Your task to perform on an android device: turn on notifications settings in the gmail app Image 0: 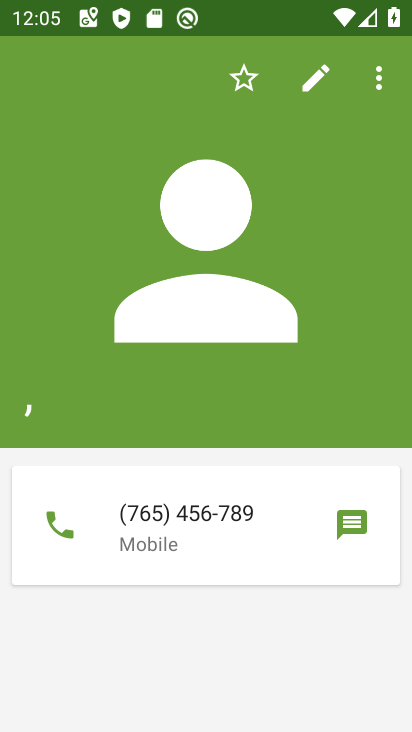
Step 0: press home button
Your task to perform on an android device: turn on notifications settings in the gmail app Image 1: 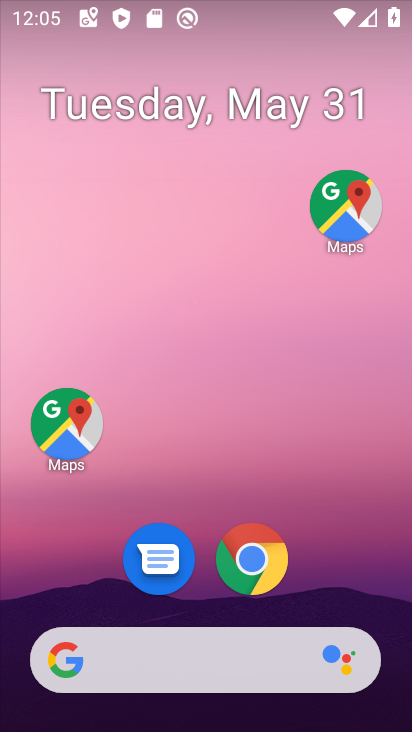
Step 1: drag from (344, 565) to (245, 83)
Your task to perform on an android device: turn on notifications settings in the gmail app Image 2: 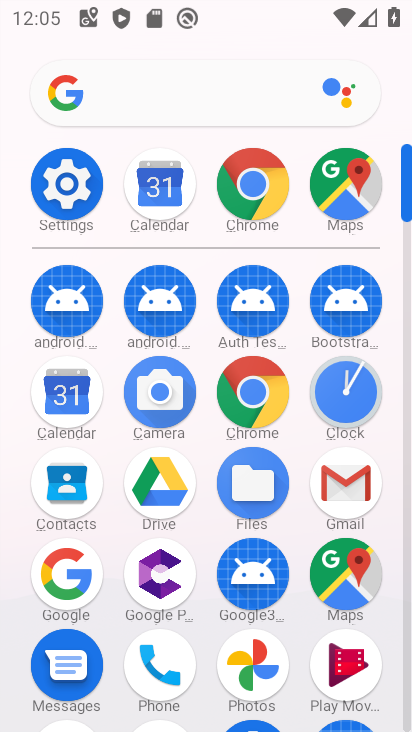
Step 2: click (337, 484)
Your task to perform on an android device: turn on notifications settings in the gmail app Image 3: 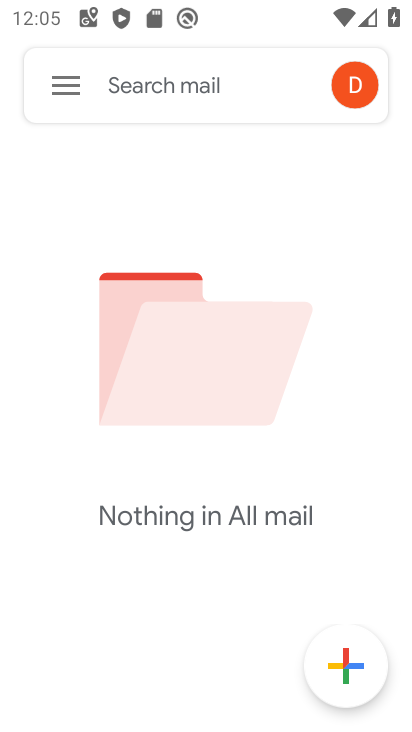
Step 3: click (51, 69)
Your task to perform on an android device: turn on notifications settings in the gmail app Image 4: 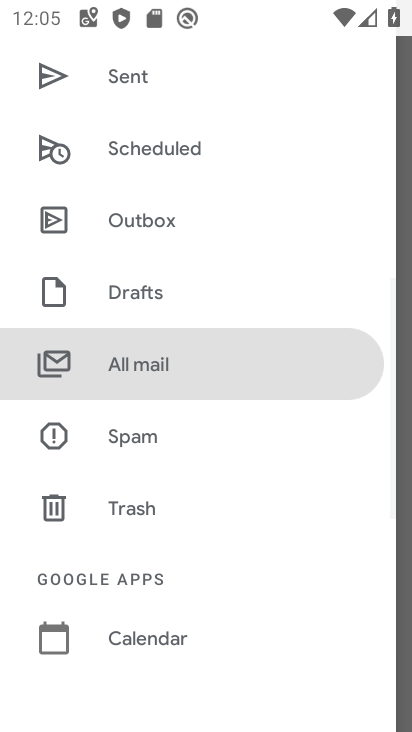
Step 4: drag from (139, 639) to (226, 187)
Your task to perform on an android device: turn on notifications settings in the gmail app Image 5: 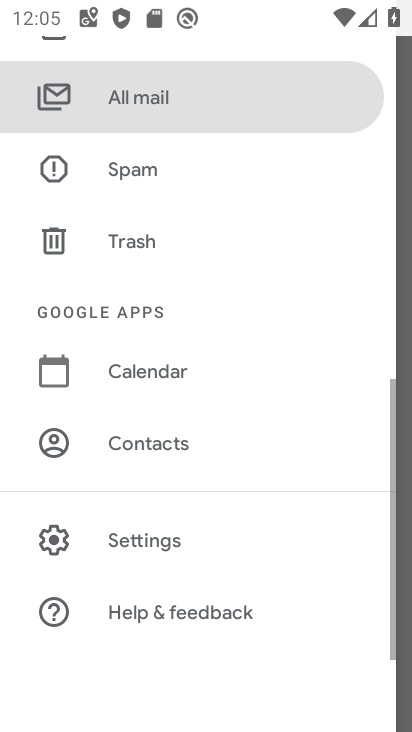
Step 5: click (143, 543)
Your task to perform on an android device: turn on notifications settings in the gmail app Image 6: 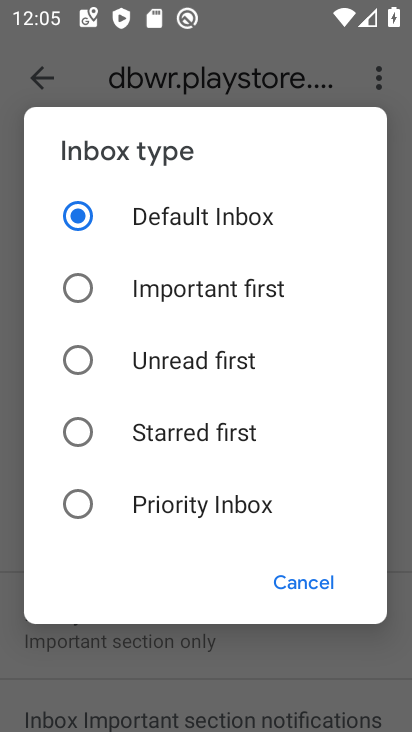
Step 6: click (307, 588)
Your task to perform on an android device: turn on notifications settings in the gmail app Image 7: 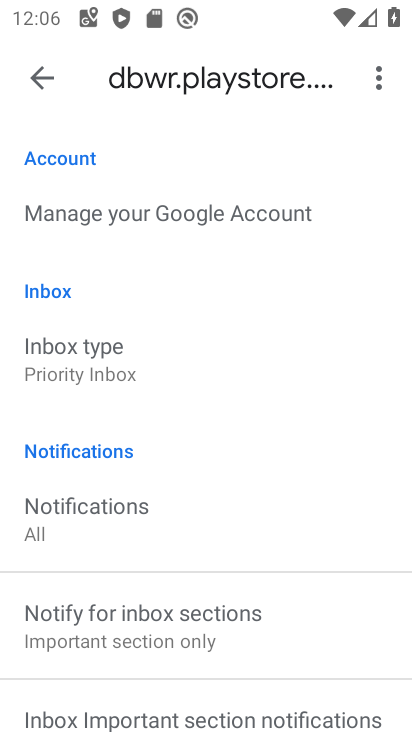
Step 7: drag from (260, 670) to (311, 198)
Your task to perform on an android device: turn on notifications settings in the gmail app Image 8: 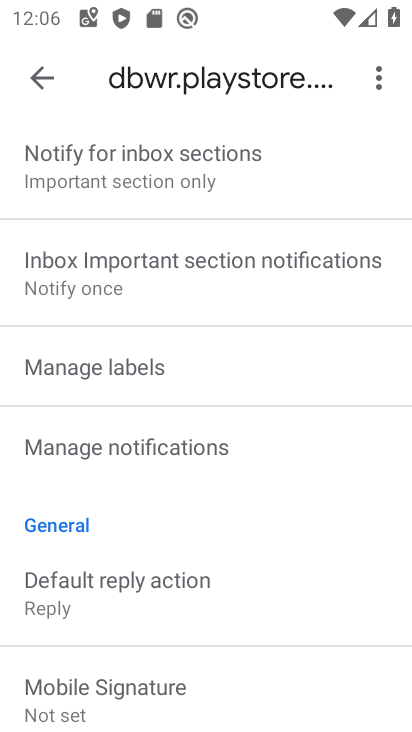
Step 8: click (186, 460)
Your task to perform on an android device: turn on notifications settings in the gmail app Image 9: 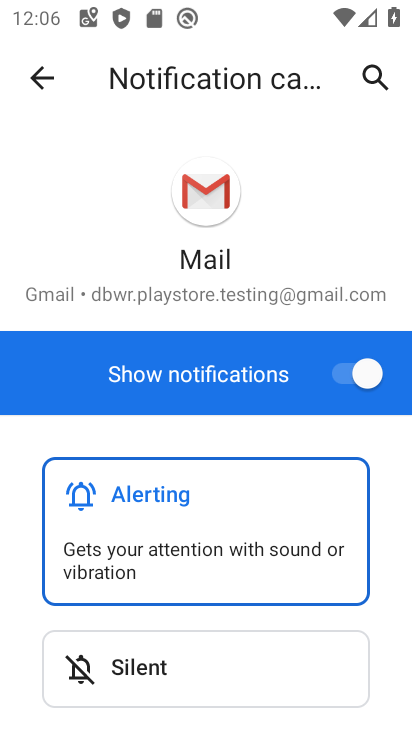
Step 9: task complete